Your task to perform on an android device: Open the map Image 0: 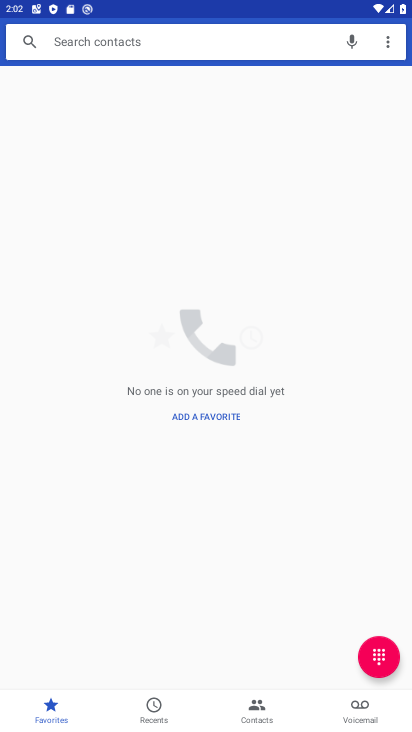
Step 0: drag from (229, 656) to (226, 509)
Your task to perform on an android device: Open the map Image 1: 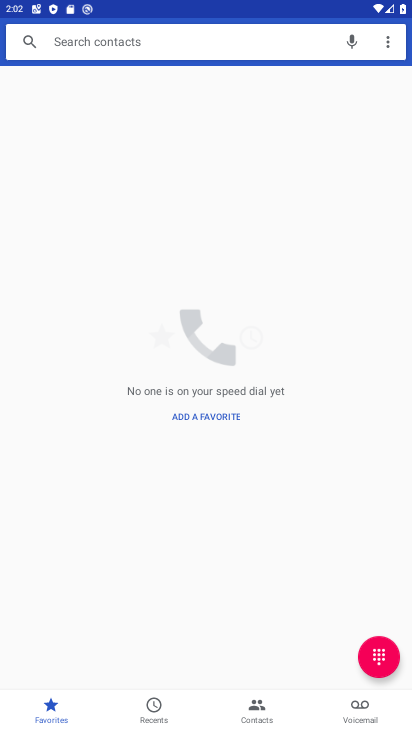
Step 1: press home button
Your task to perform on an android device: Open the map Image 2: 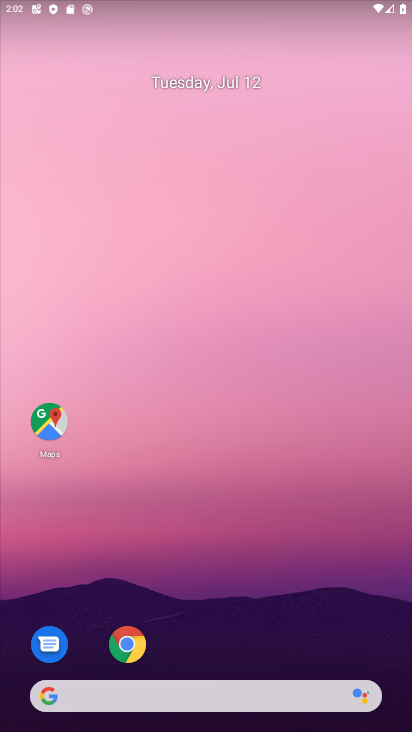
Step 2: drag from (193, 659) to (202, 129)
Your task to perform on an android device: Open the map Image 3: 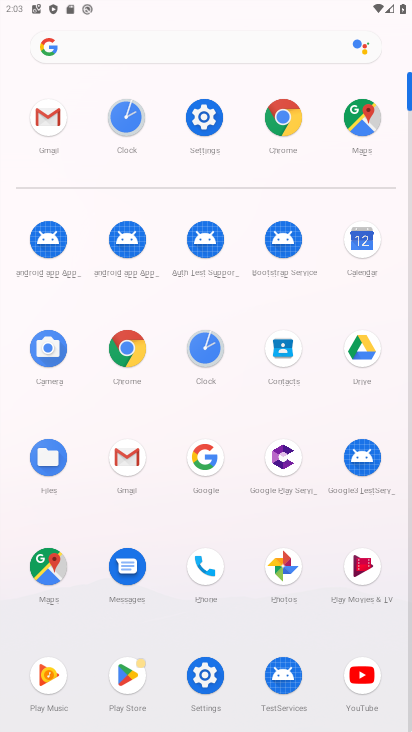
Step 3: click (43, 579)
Your task to perform on an android device: Open the map Image 4: 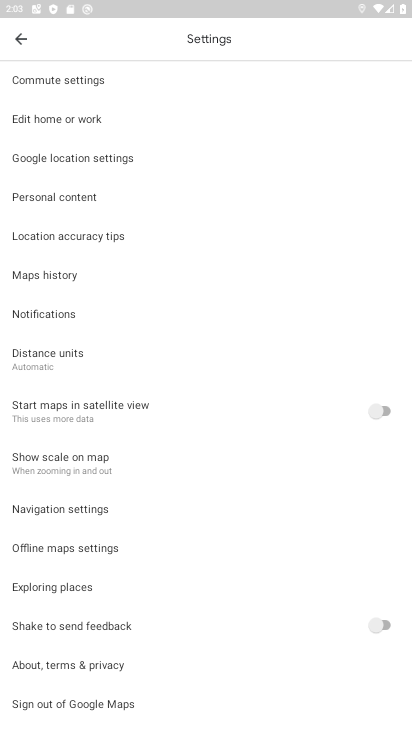
Step 4: task complete